Your task to perform on an android device: turn off smart reply in the gmail app Image 0: 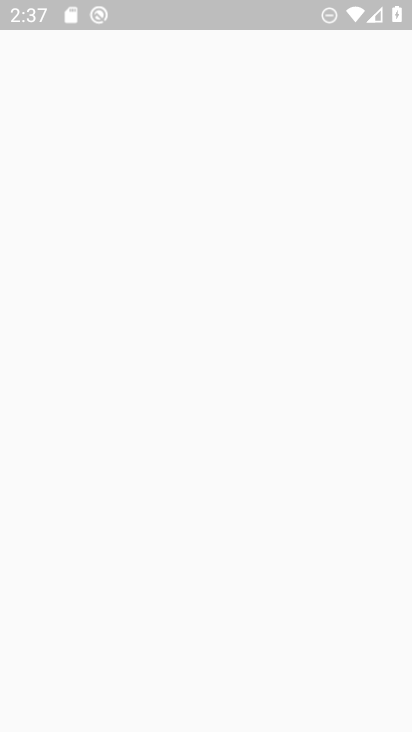
Step 0: click (234, 687)
Your task to perform on an android device: turn off smart reply in the gmail app Image 1: 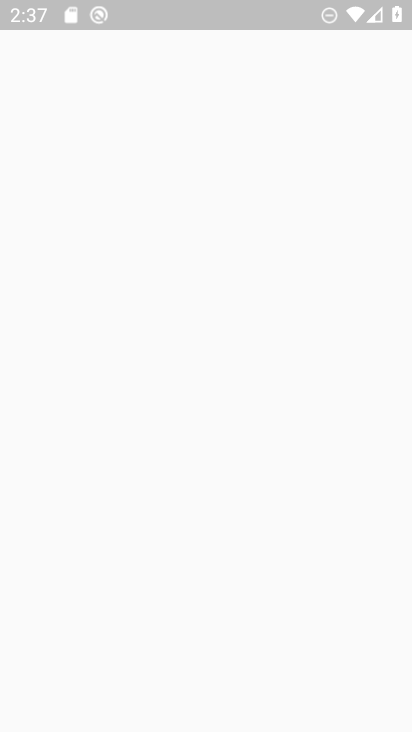
Step 1: press home button
Your task to perform on an android device: turn off smart reply in the gmail app Image 2: 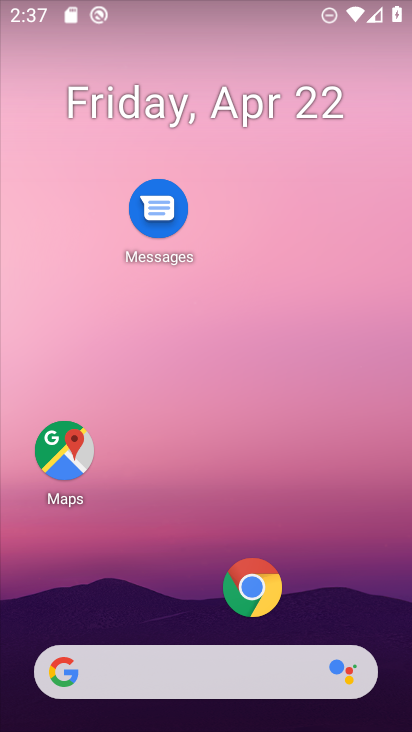
Step 2: drag from (187, 616) to (211, 158)
Your task to perform on an android device: turn off smart reply in the gmail app Image 3: 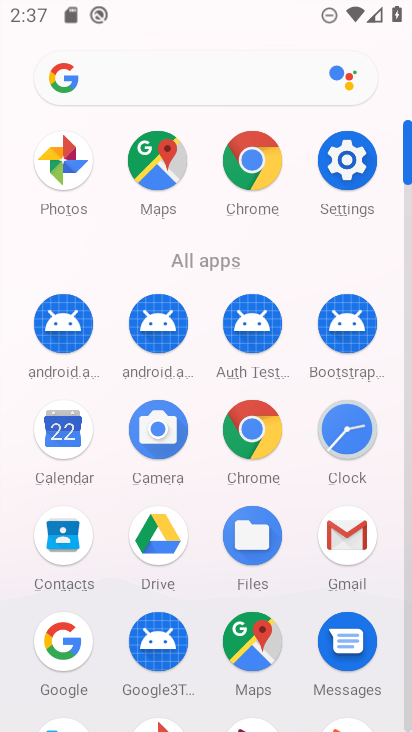
Step 3: click (338, 563)
Your task to perform on an android device: turn off smart reply in the gmail app Image 4: 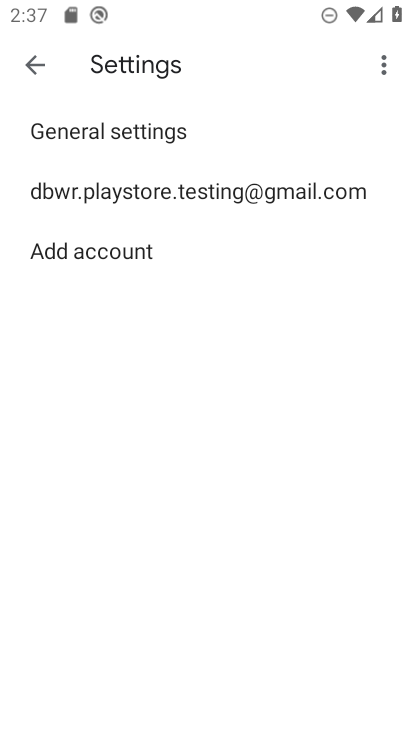
Step 4: click (173, 194)
Your task to perform on an android device: turn off smart reply in the gmail app Image 5: 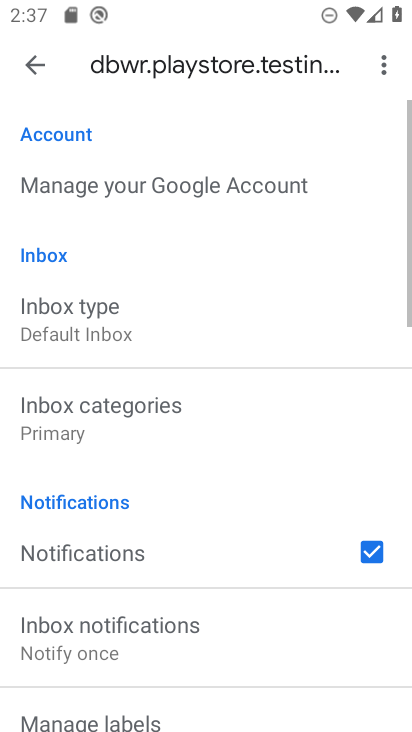
Step 5: drag from (194, 655) to (219, 330)
Your task to perform on an android device: turn off smart reply in the gmail app Image 6: 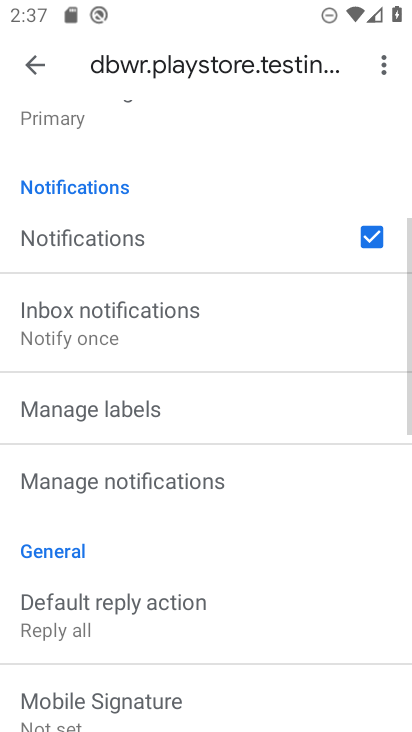
Step 6: drag from (209, 605) to (225, 323)
Your task to perform on an android device: turn off smart reply in the gmail app Image 7: 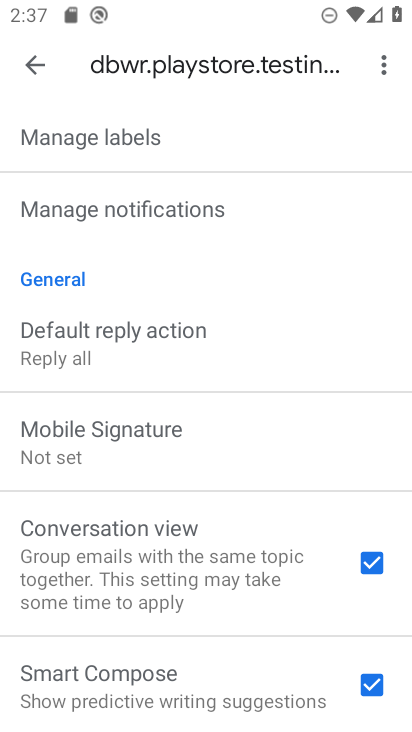
Step 7: drag from (209, 659) to (243, 433)
Your task to perform on an android device: turn off smart reply in the gmail app Image 8: 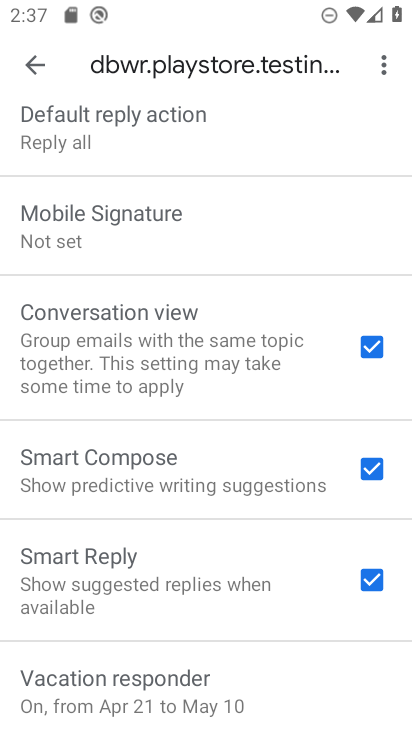
Step 8: click (363, 579)
Your task to perform on an android device: turn off smart reply in the gmail app Image 9: 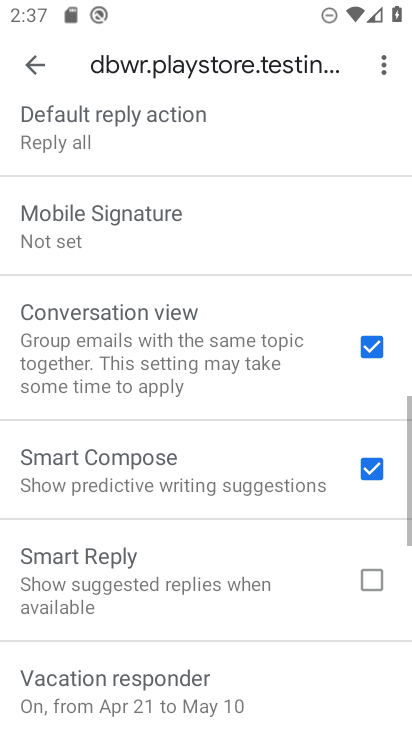
Step 9: task complete